Your task to perform on an android device: Clear the cart on bestbuy.com. Add razer nari to the cart on bestbuy.com Image 0: 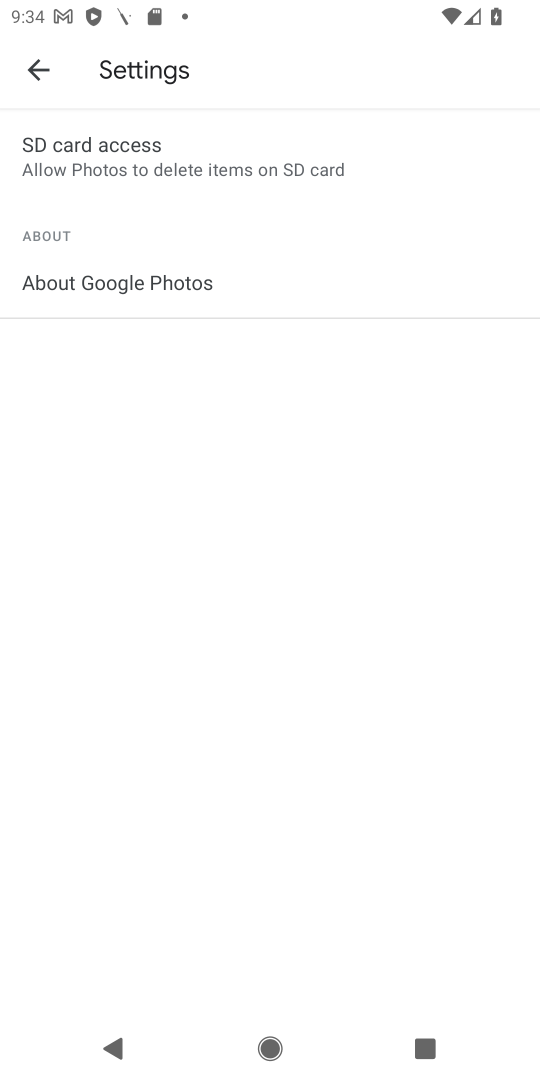
Step 0: press home button
Your task to perform on an android device: Clear the cart on bestbuy.com. Add razer nari to the cart on bestbuy.com Image 1: 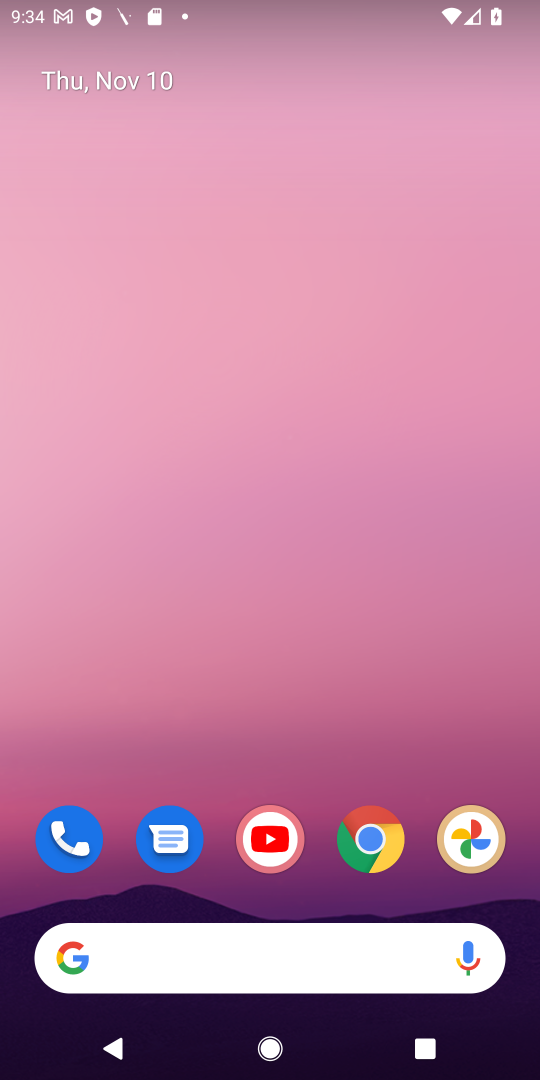
Step 1: click (358, 855)
Your task to perform on an android device: Clear the cart on bestbuy.com. Add razer nari to the cart on bestbuy.com Image 2: 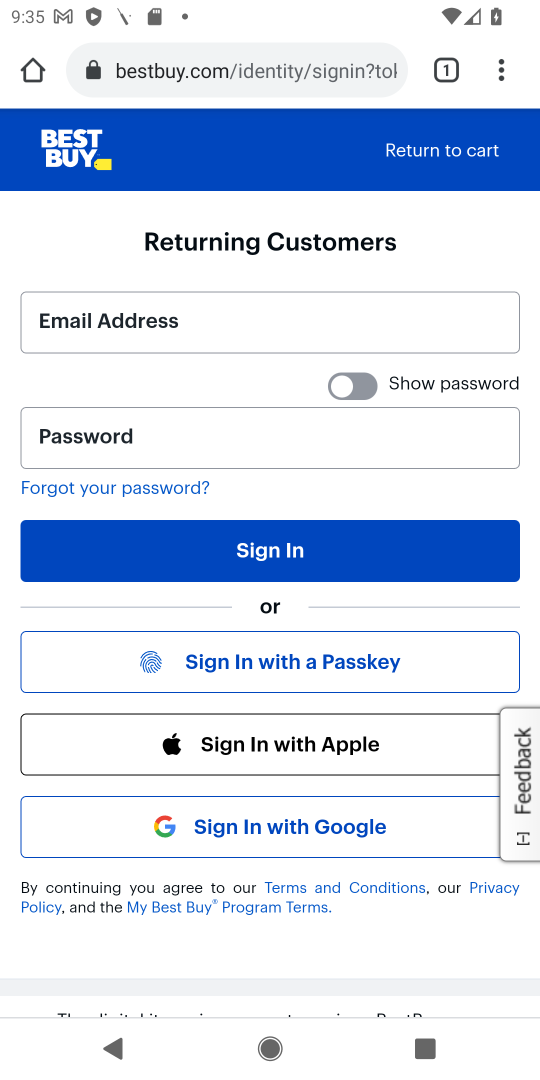
Step 2: press back button
Your task to perform on an android device: Clear the cart on bestbuy.com. Add razer nari to the cart on bestbuy.com Image 3: 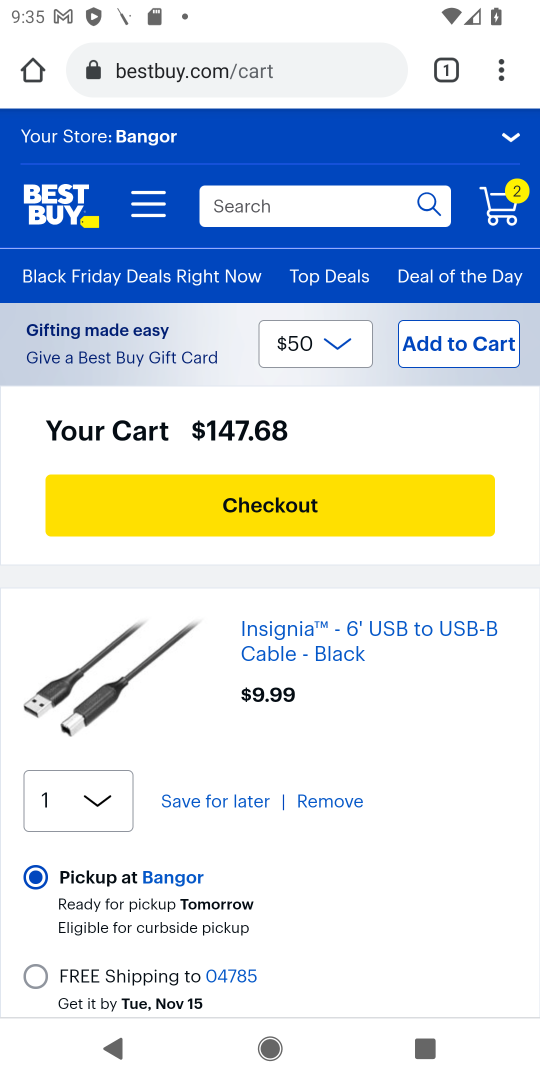
Step 3: click (493, 208)
Your task to perform on an android device: Clear the cart on bestbuy.com. Add razer nari to the cart on bestbuy.com Image 4: 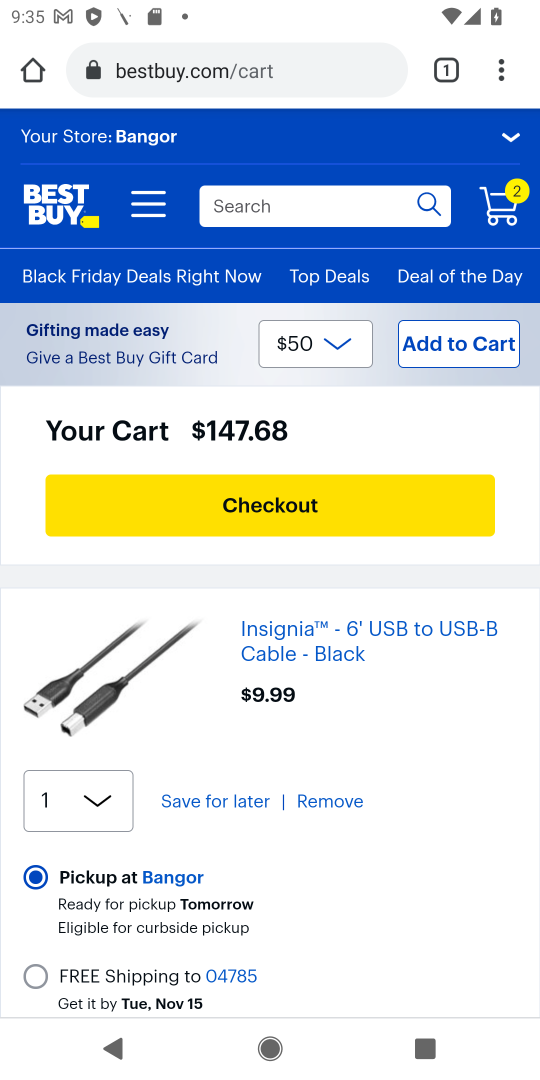
Step 4: click (336, 800)
Your task to perform on an android device: Clear the cart on bestbuy.com. Add razer nari to the cart on bestbuy.com Image 5: 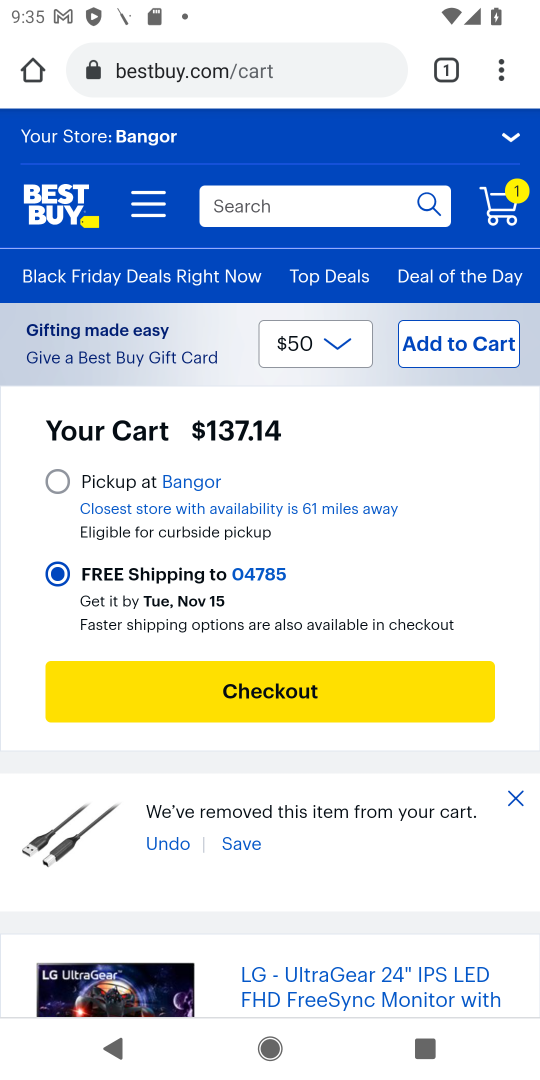
Step 5: click (516, 803)
Your task to perform on an android device: Clear the cart on bestbuy.com. Add razer nari to the cart on bestbuy.com Image 6: 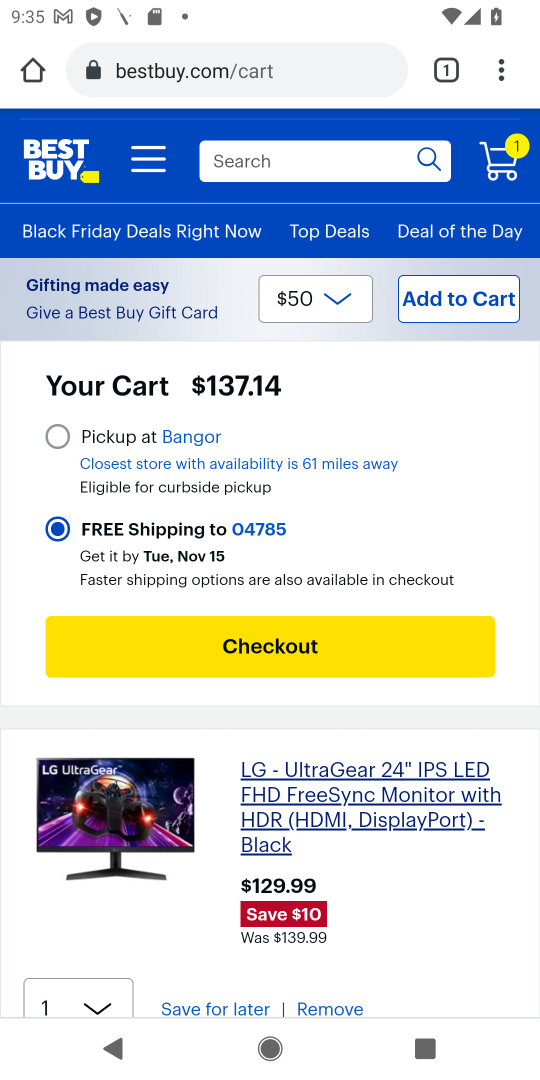
Step 6: drag from (434, 892) to (472, 554)
Your task to perform on an android device: Clear the cart on bestbuy.com. Add razer nari to the cart on bestbuy.com Image 7: 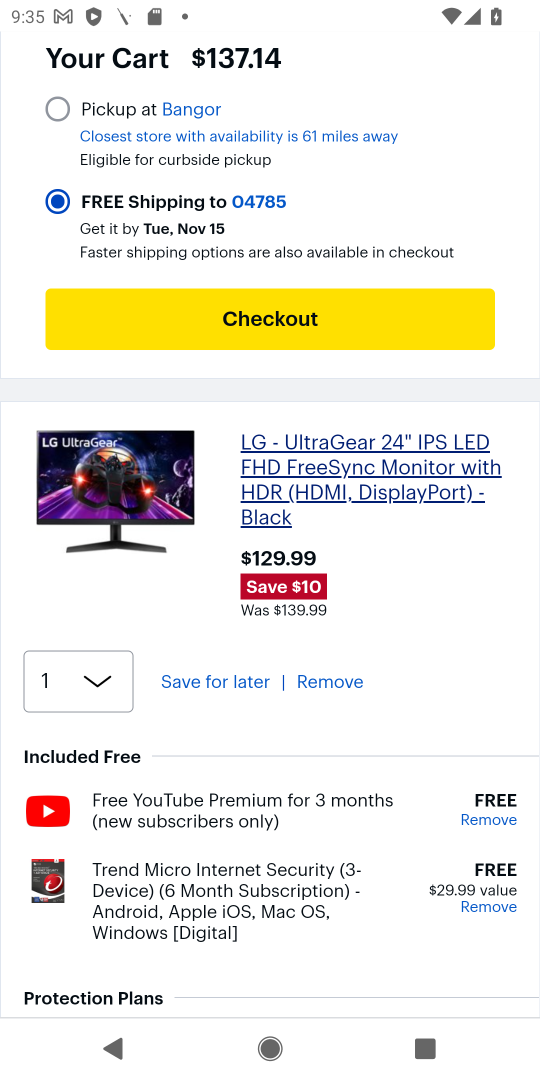
Step 7: click (346, 683)
Your task to perform on an android device: Clear the cart on bestbuy.com. Add razer nari to the cart on bestbuy.com Image 8: 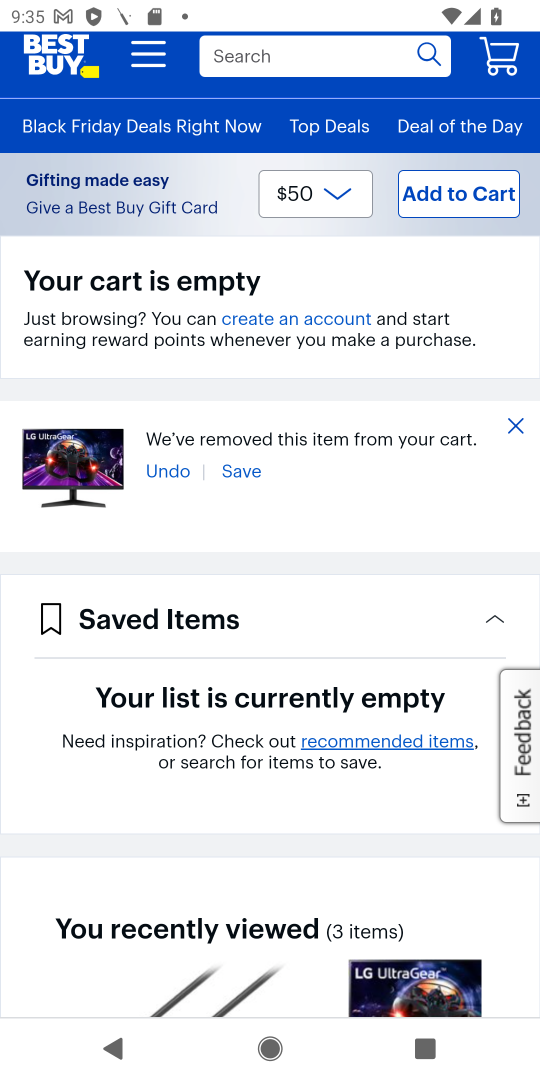
Step 8: click (517, 420)
Your task to perform on an android device: Clear the cart on bestbuy.com. Add razer nari to the cart on bestbuy.com Image 9: 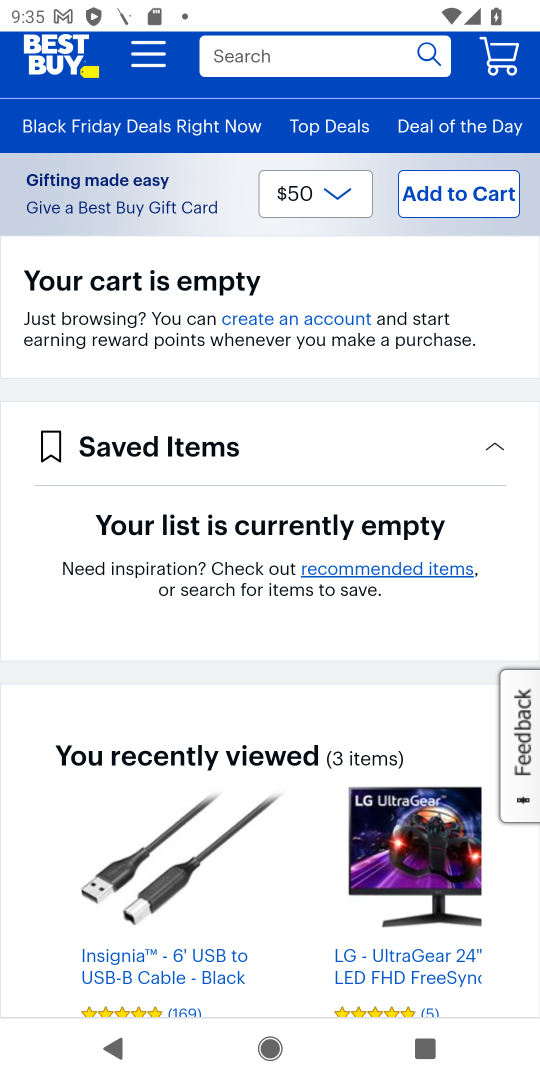
Step 9: click (391, 43)
Your task to perform on an android device: Clear the cart on bestbuy.com. Add razer nari to the cart on bestbuy.com Image 10: 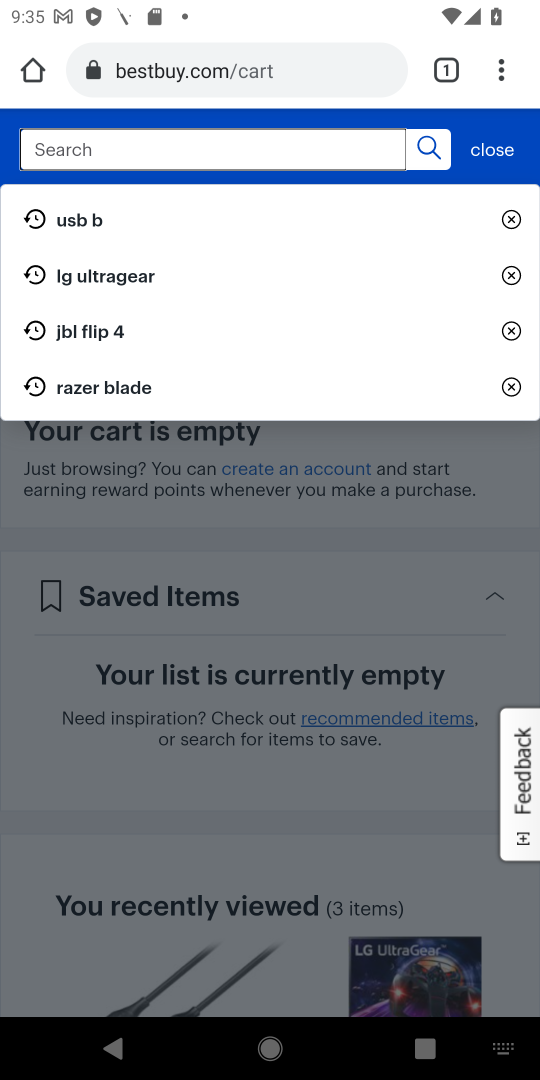
Step 10: type "razer nari"
Your task to perform on an android device: Clear the cart on bestbuy.com. Add razer nari to the cart on bestbuy.com Image 11: 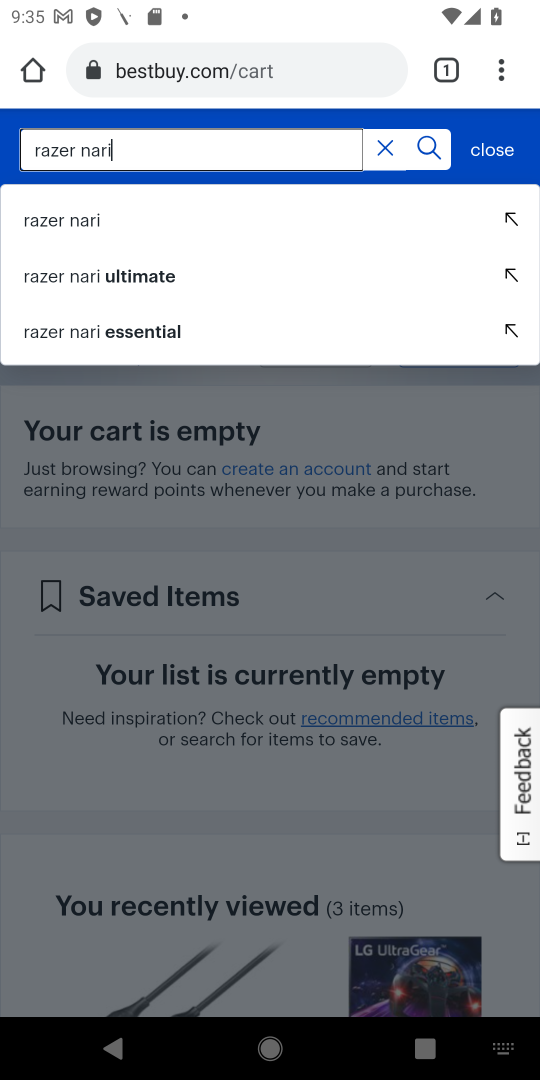
Step 11: click (86, 221)
Your task to perform on an android device: Clear the cart on bestbuy.com. Add razer nari to the cart on bestbuy.com Image 12: 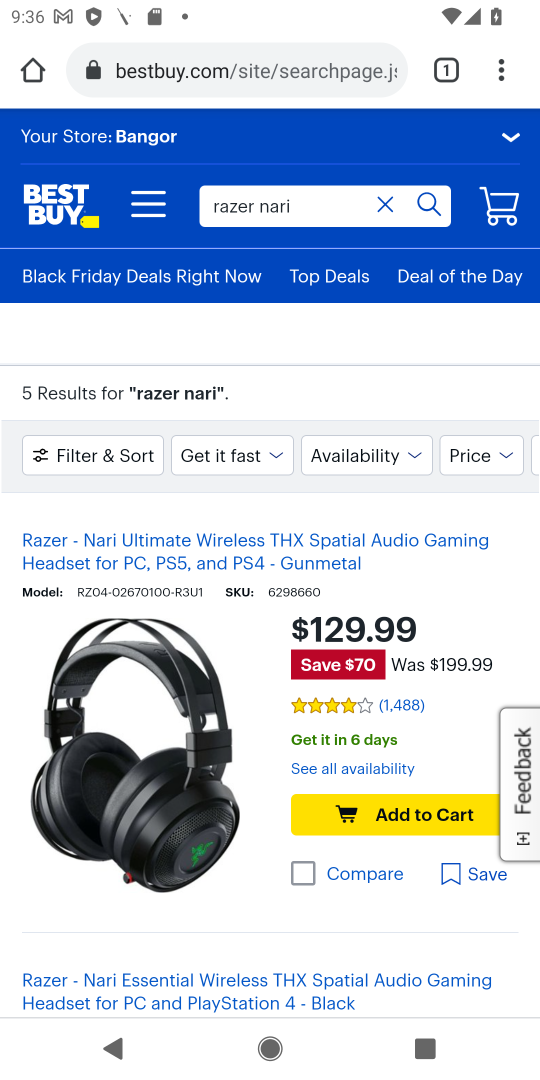
Step 12: click (220, 561)
Your task to perform on an android device: Clear the cart on bestbuy.com. Add razer nari to the cart on bestbuy.com Image 13: 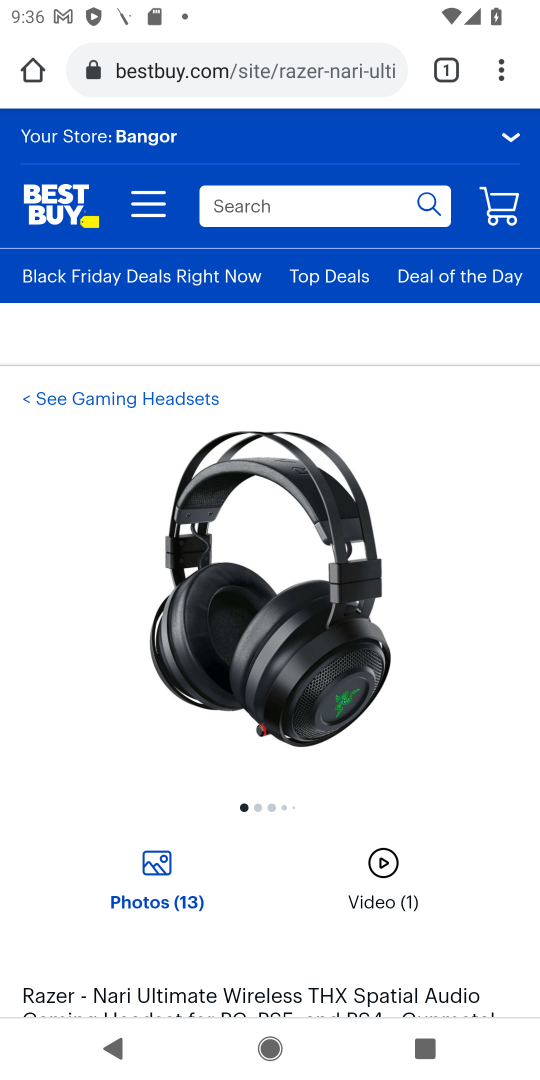
Step 13: drag from (412, 618) to (426, 375)
Your task to perform on an android device: Clear the cart on bestbuy.com. Add razer nari to the cart on bestbuy.com Image 14: 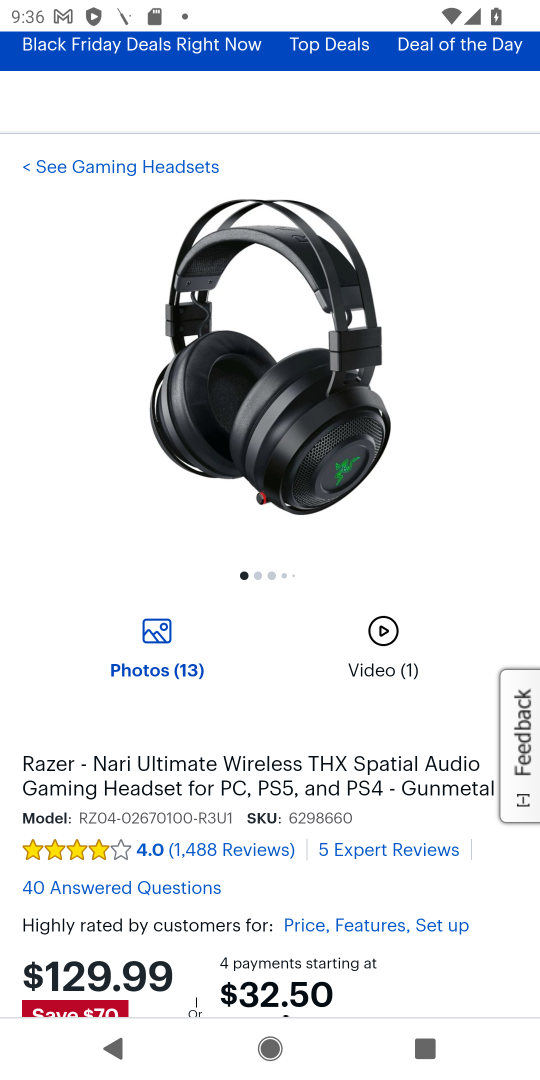
Step 14: drag from (456, 890) to (385, 561)
Your task to perform on an android device: Clear the cart on bestbuy.com. Add razer nari to the cart on bestbuy.com Image 15: 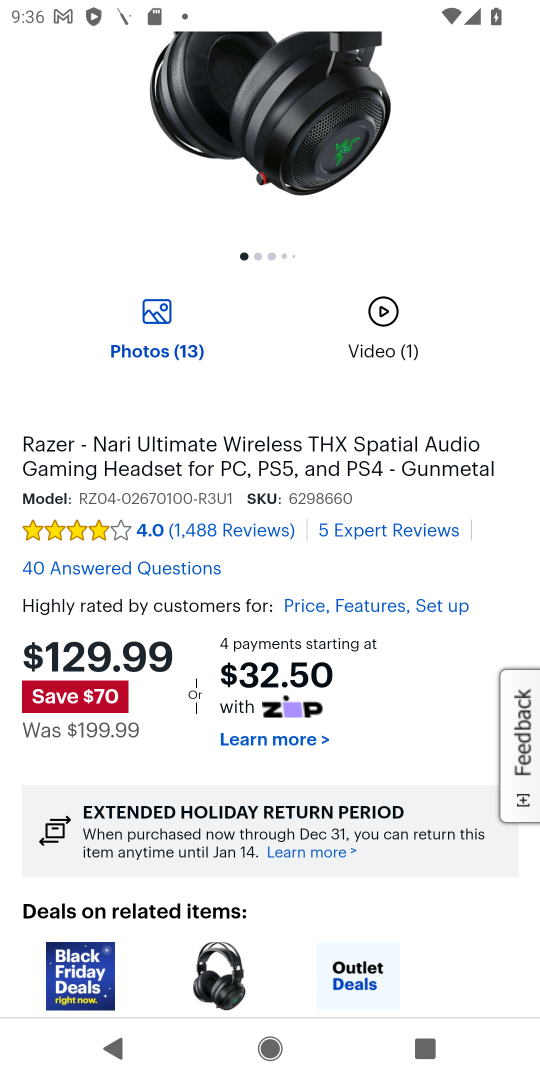
Step 15: drag from (488, 935) to (368, 526)
Your task to perform on an android device: Clear the cart on bestbuy.com. Add razer nari to the cart on bestbuy.com Image 16: 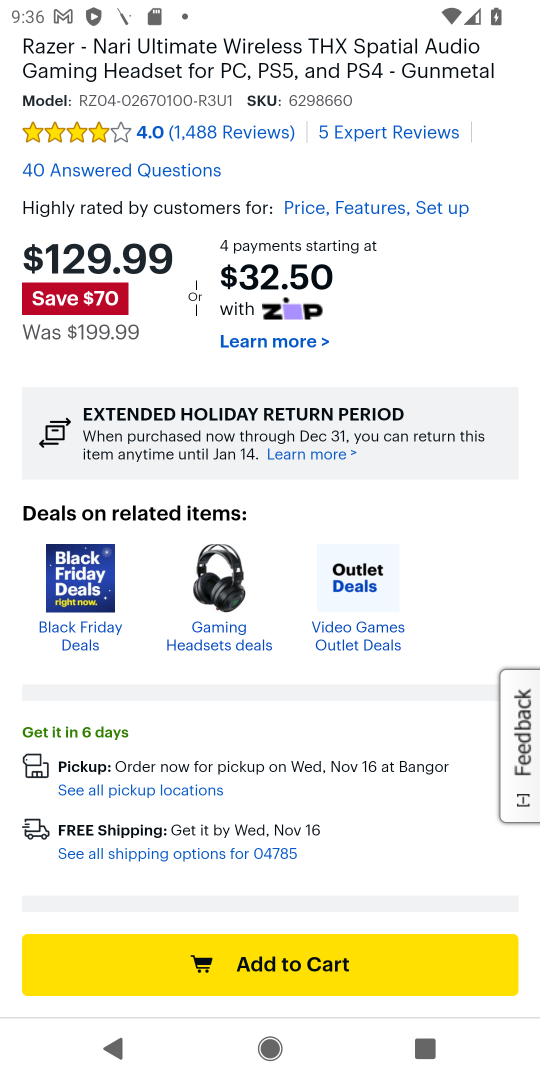
Step 16: click (311, 961)
Your task to perform on an android device: Clear the cart on bestbuy.com. Add razer nari to the cart on bestbuy.com Image 17: 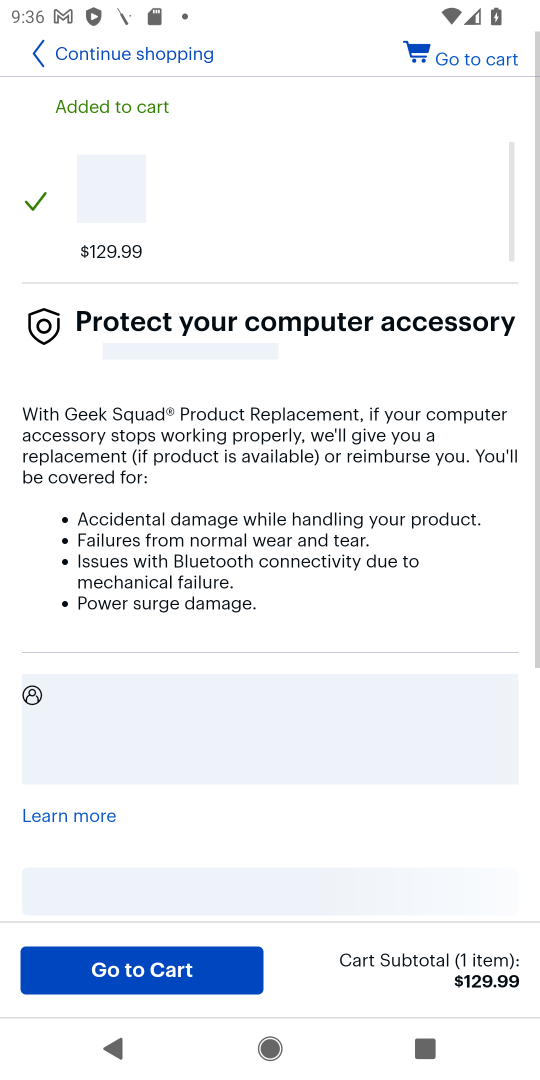
Step 17: task complete